Your task to perform on an android device: Open Reddit.com Image 0: 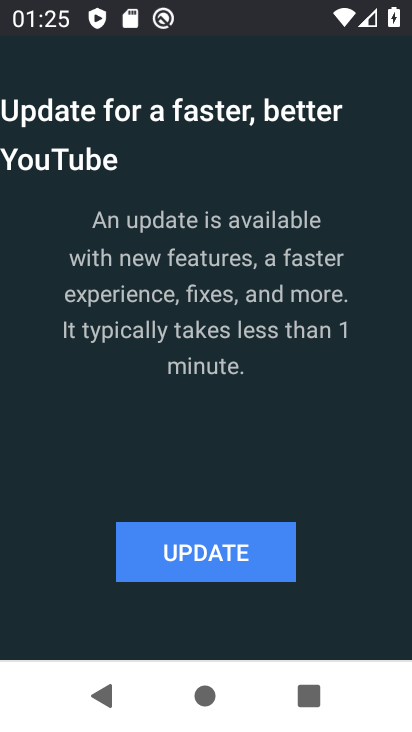
Step 0: press home button
Your task to perform on an android device: Open Reddit.com Image 1: 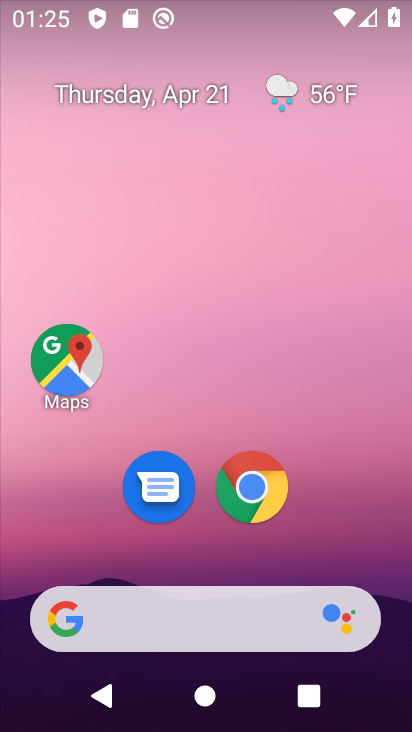
Step 1: click (251, 475)
Your task to perform on an android device: Open Reddit.com Image 2: 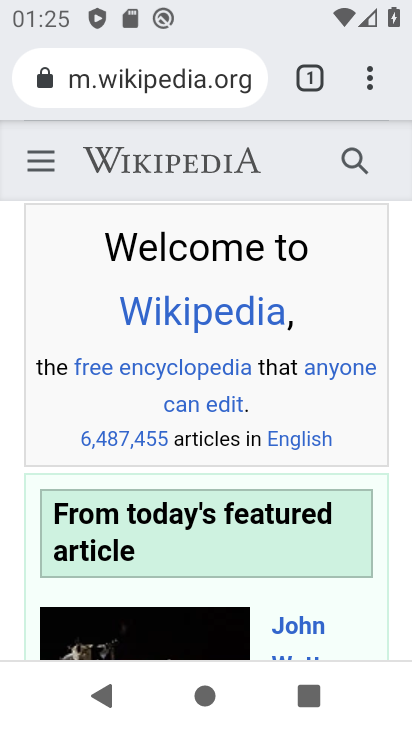
Step 2: click (205, 84)
Your task to perform on an android device: Open Reddit.com Image 3: 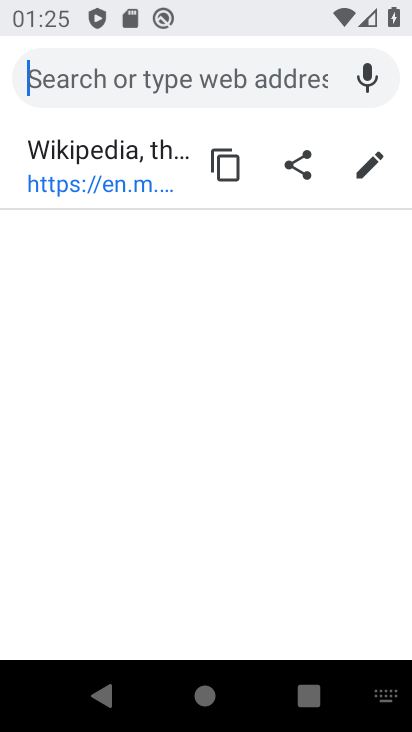
Step 3: type "Reddit.com"
Your task to perform on an android device: Open Reddit.com Image 4: 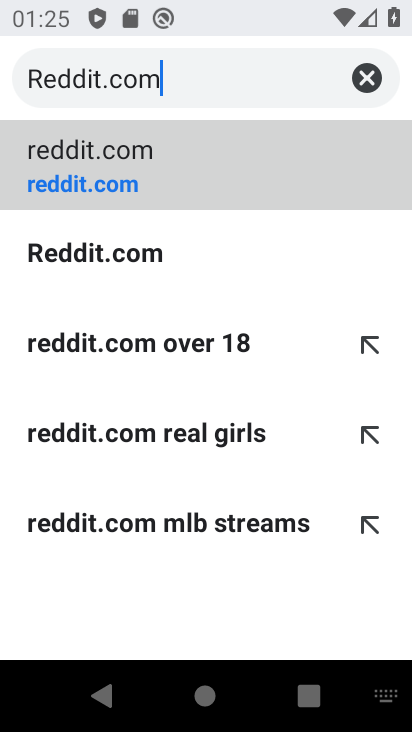
Step 4: click (95, 173)
Your task to perform on an android device: Open Reddit.com Image 5: 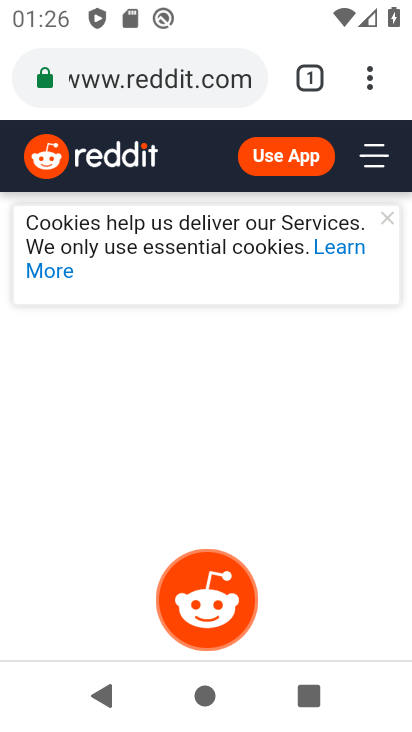
Step 5: task complete